Your task to perform on an android device: change text size in settings app Image 0: 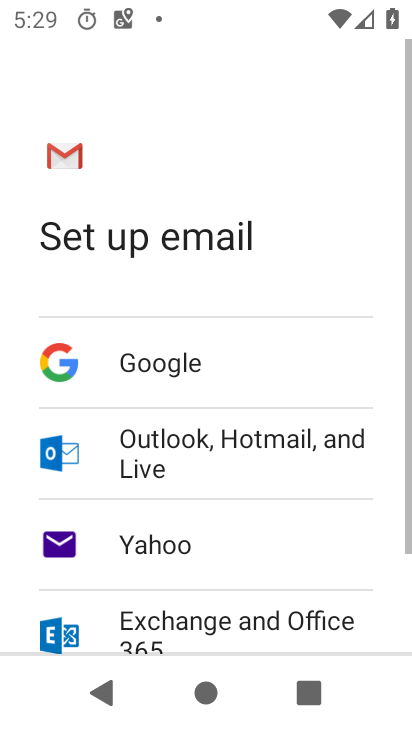
Step 0: press home button
Your task to perform on an android device: change text size in settings app Image 1: 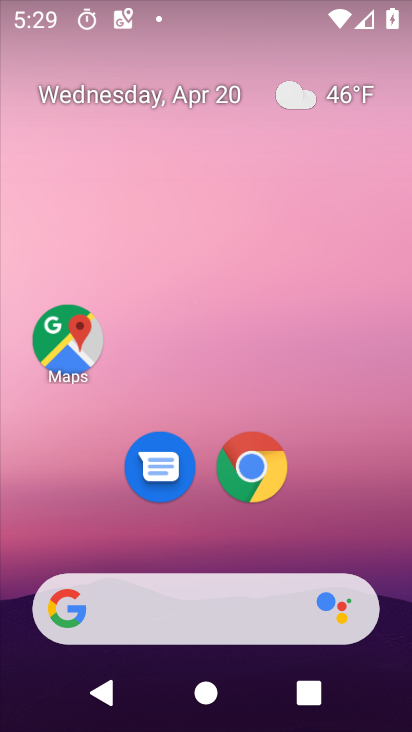
Step 1: drag from (205, 541) to (241, 165)
Your task to perform on an android device: change text size in settings app Image 2: 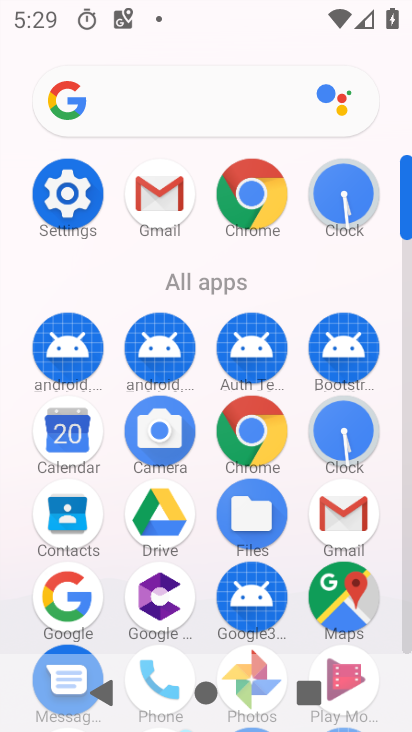
Step 2: click (62, 195)
Your task to perform on an android device: change text size in settings app Image 3: 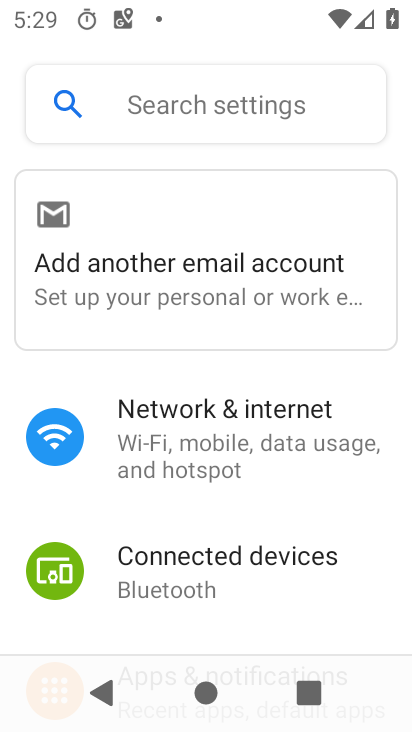
Step 3: drag from (216, 541) to (267, 128)
Your task to perform on an android device: change text size in settings app Image 4: 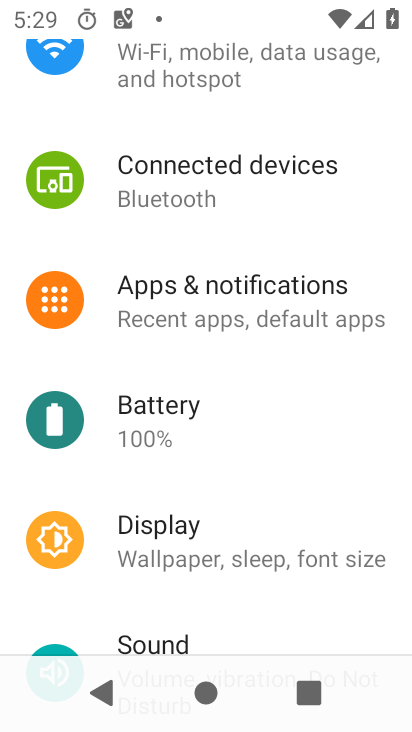
Step 4: drag from (169, 566) to (177, 524)
Your task to perform on an android device: change text size in settings app Image 5: 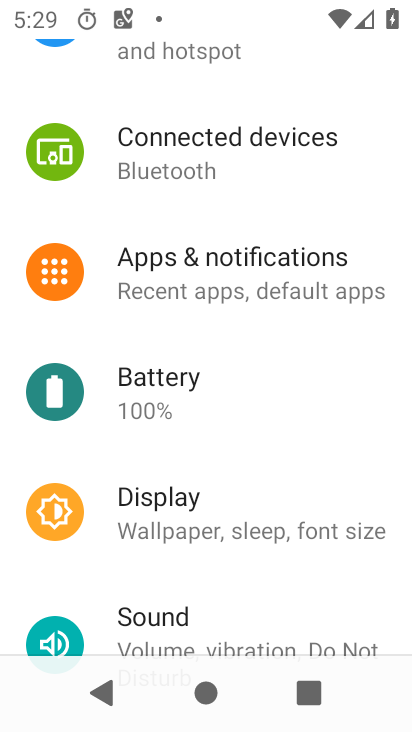
Step 5: click (175, 521)
Your task to perform on an android device: change text size in settings app Image 6: 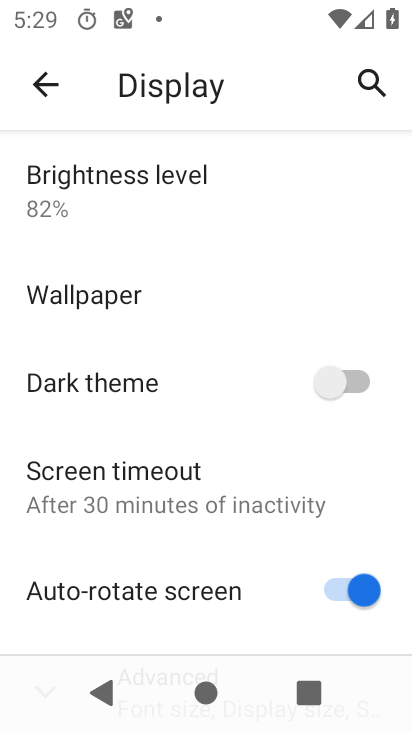
Step 6: drag from (98, 401) to (141, 256)
Your task to perform on an android device: change text size in settings app Image 7: 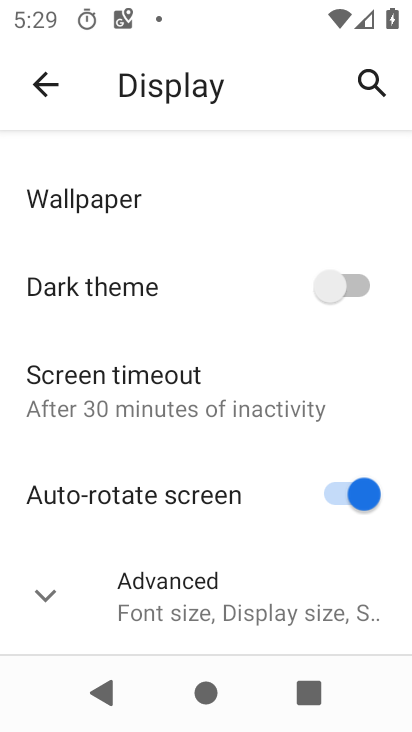
Step 7: click (149, 602)
Your task to perform on an android device: change text size in settings app Image 8: 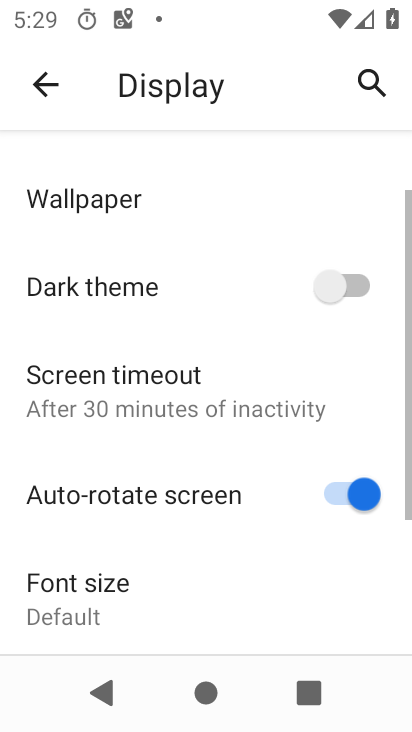
Step 8: click (94, 595)
Your task to perform on an android device: change text size in settings app Image 9: 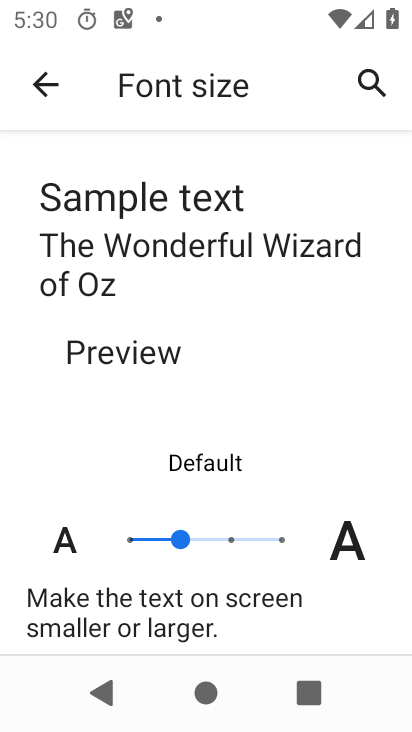
Step 9: click (130, 539)
Your task to perform on an android device: change text size in settings app Image 10: 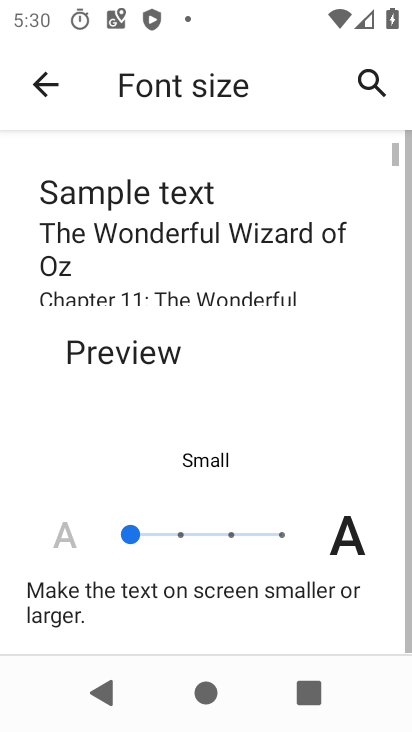
Step 10: task complete